Your task to perform on an android device: Open Yahoo.com Image 0: 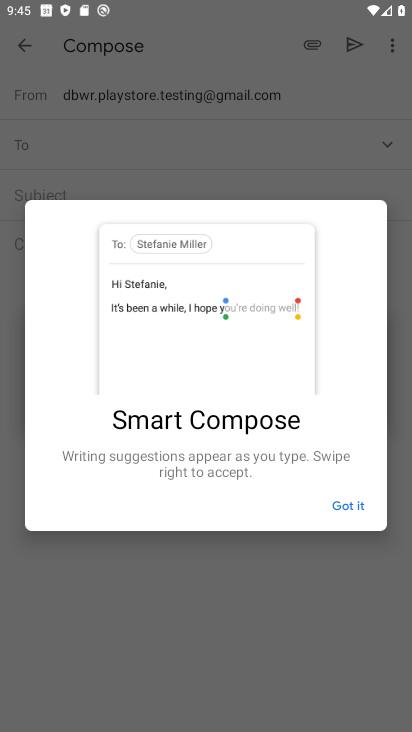
Step 0: press home button
Your task to perform on an android device: Open Yahoo.com Image 1: 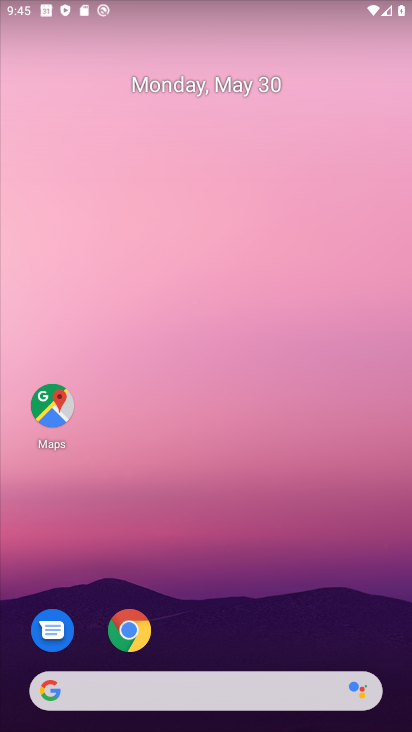
Step 1: click (138, 681)
Your task to perform on an android device: Open Yahoo.com Image 2: 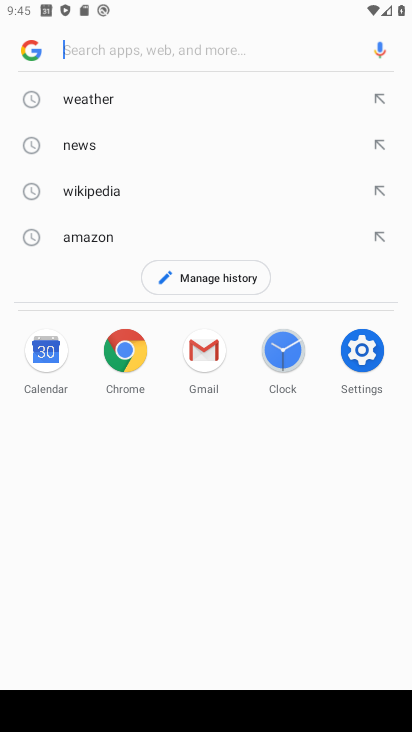
Step 2: type "yahoo.com"
Your task to perform on an android device: Open Yahoo.com Image 3: 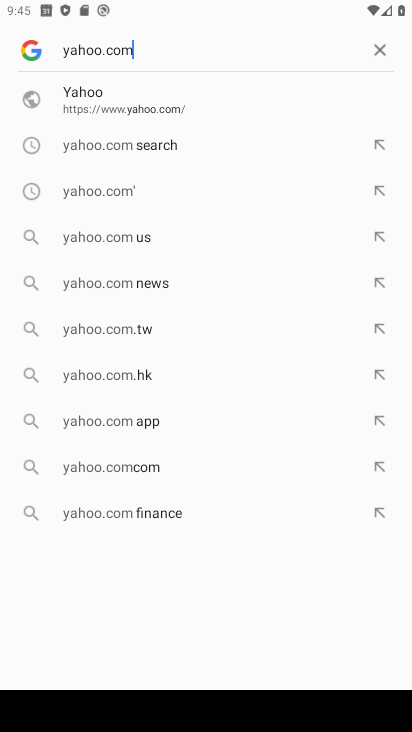
Step 3: click (229, 98)
Your task to perform on an android device: Open Yahoo.com Image 4: 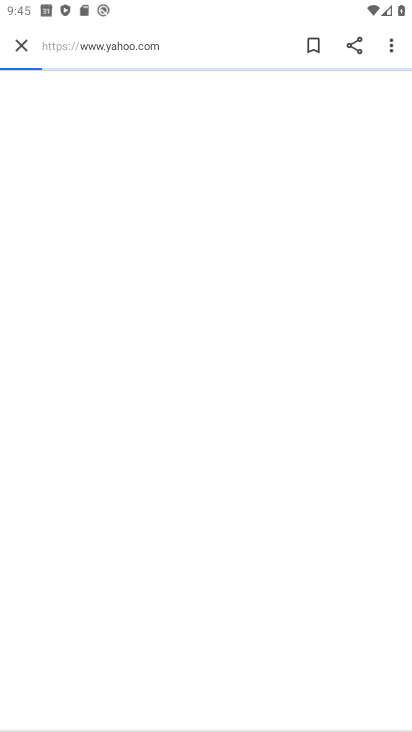
Step 4: task complete